Your task to perform on an android device: Open the Play Movies app and select the watchlist tab. Image 0: 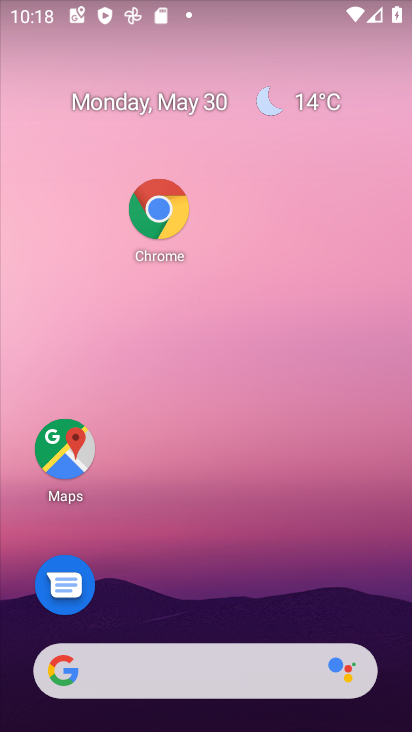
Step 0: drag from (188, 602) to (209, 80)
Your task to perform on an android device: Open the Play Movies app and select the watchlist tab. Image 1: 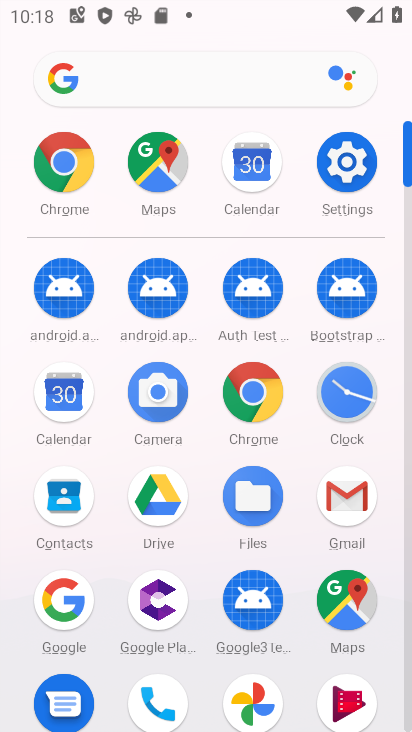
Step 1: click (353, 699)
Your task to perform on an android device: Open the Play Movies app and select the watchlist tab. Image 2: 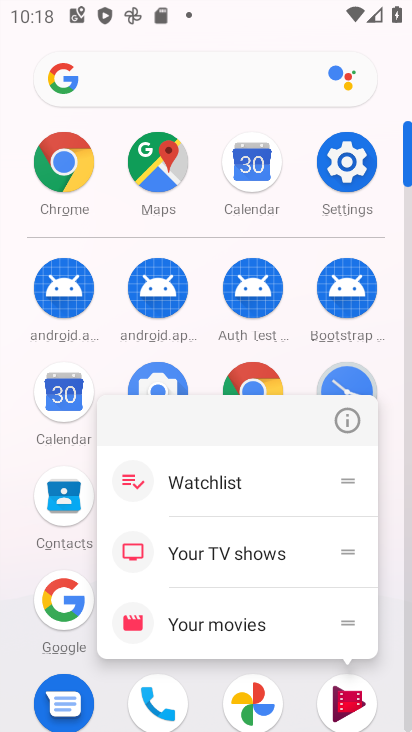
Step 2: click (342, 428)
Your task to perform on an android device: Open the Play Movies app and select the watchlist tab. Image 3: 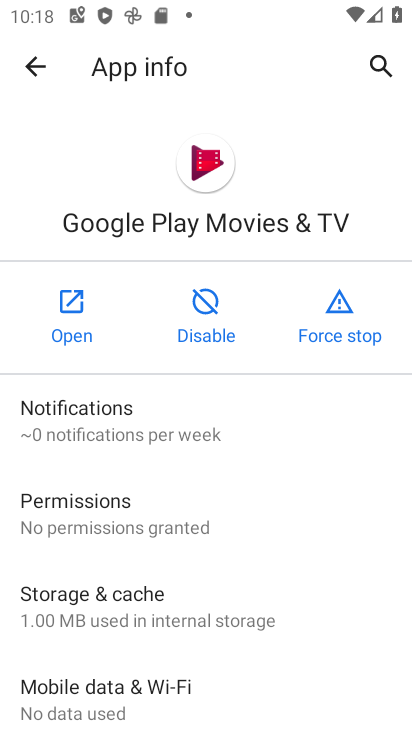
Step 3: click (31, 295)
Your task to perform on an android device: Open the Play Movies app and select the watchlist tab. Image 4: 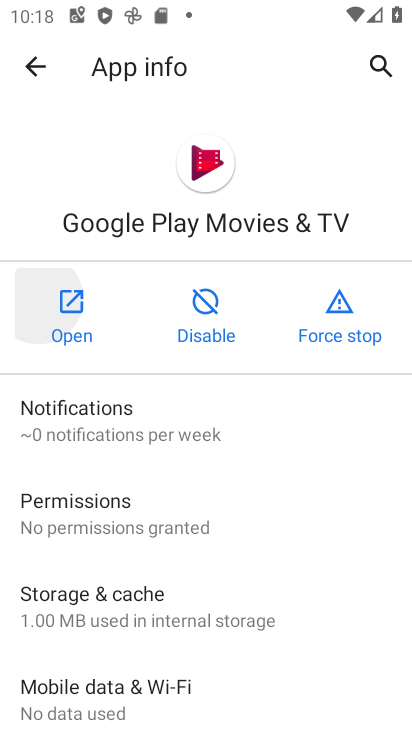
Step 4: click (63, 302)
Your task to perform on an android device: Open the Play Movies app and select the watchlist tab. Image 5: 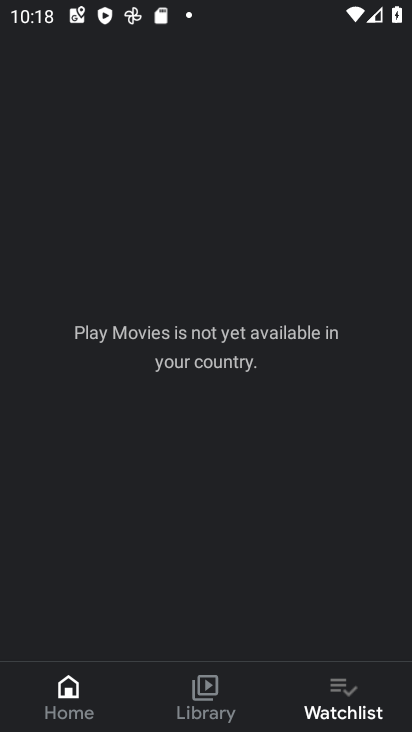
Step 5: drag from (264, 526) to (229, 312)
Your task to perform on an android device: Open the Play Movies app and select the watchlist tab. Image 6: 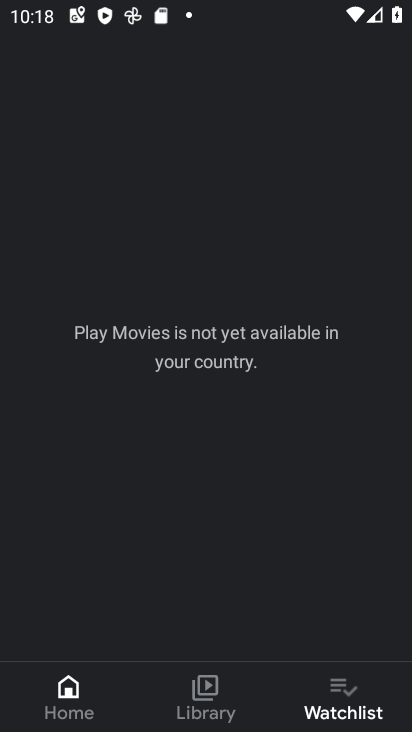
Step 6: click (324, 699)
Your task to perform on an android device: Open the Play Movies app and select the watchlist tab. Image 7: 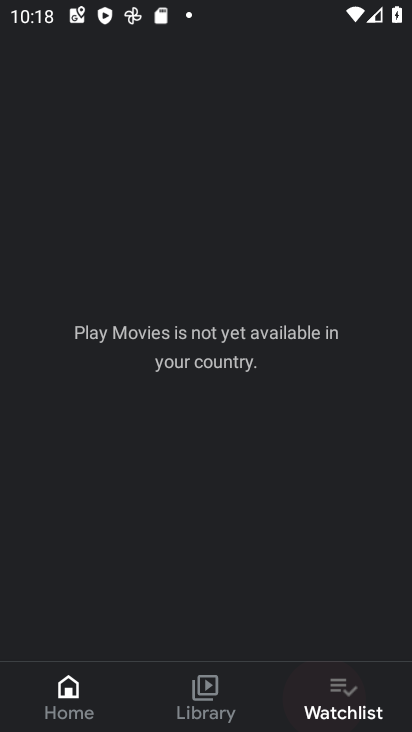
Step 7: task complete